Your task to perform on an android device: Open Maps and search for coffee Image 0: 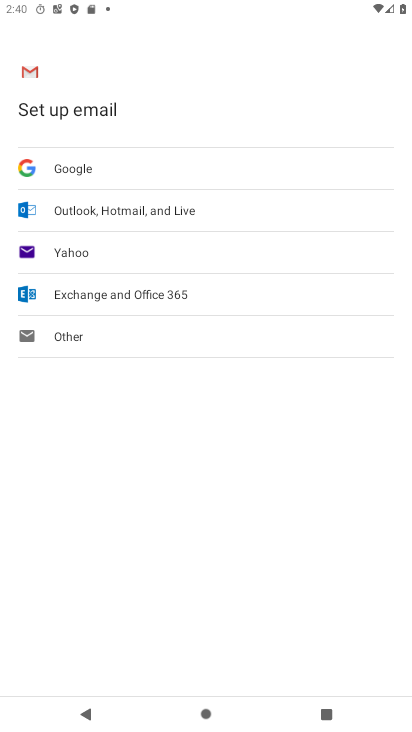
Step 0: press home button
Your task to perform on an android device: Open Maps and search for coffee Image 1: 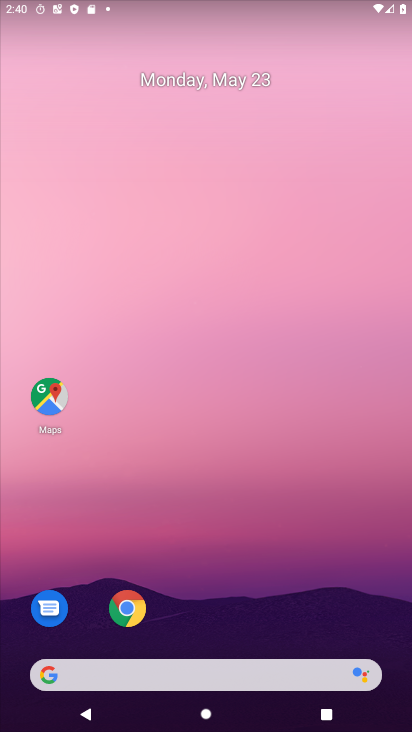
Step 1: click (66, 405)
Your task to perform on an android device: Open Maps and search for coffee Image 2: 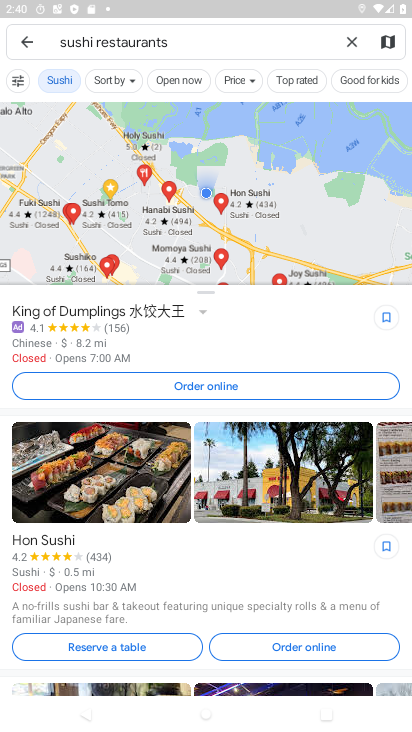
Step 2: click (352, 38)
Your task to perform on an android device: Open Maps and search for coffee Image 3: 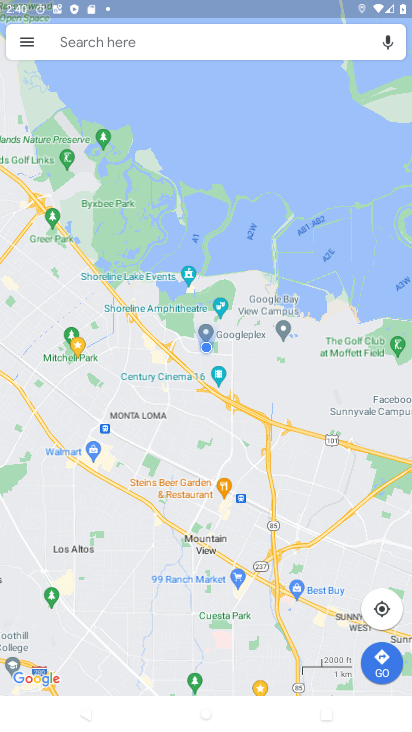
Step 3: click (159, 42)
Your task to perform on an android device: Open Maps and search for coffee Image 4: 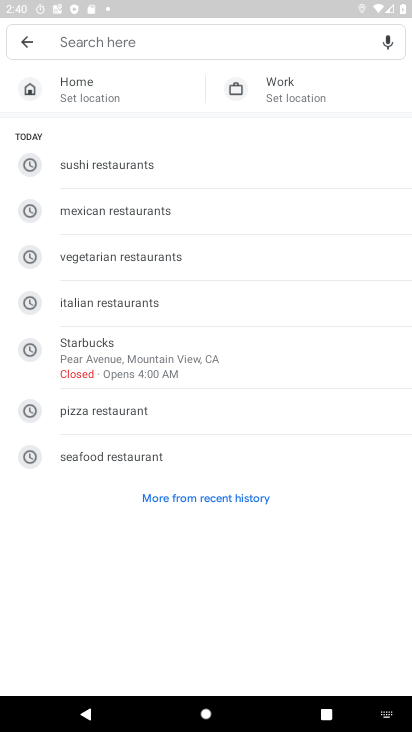
Step 4: type "coffee"
Your task to perform on an android device: Open Maps and search for coffee Image 5: 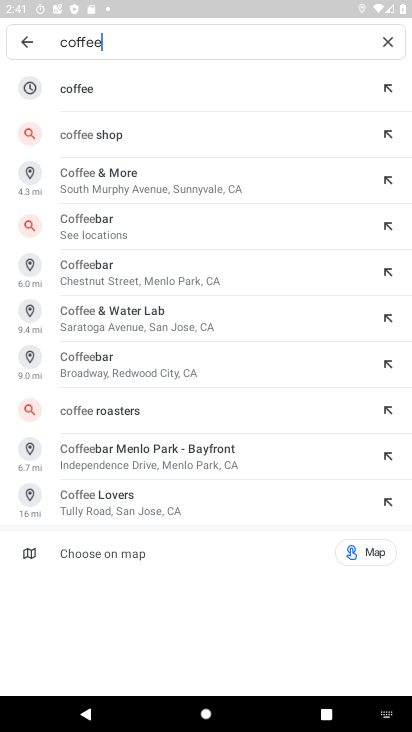
Step 5: click (134, 81)
Your task to perform on an android device: Open Maps and search for coffee Image 6: 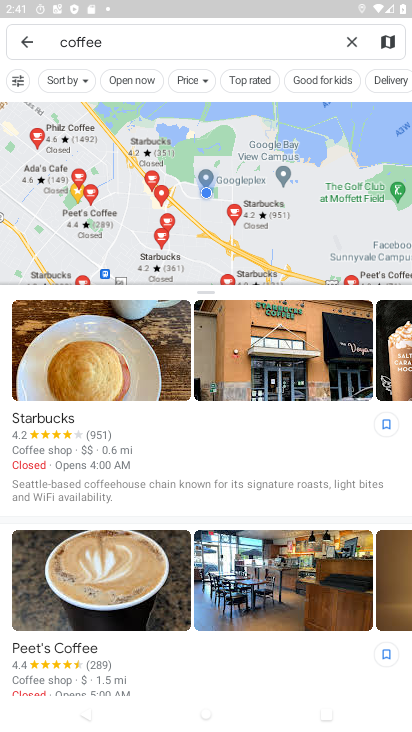
Step 6: task complete